Your task to perform on an android device: toggle notifications settings in the gmail app Image 0: 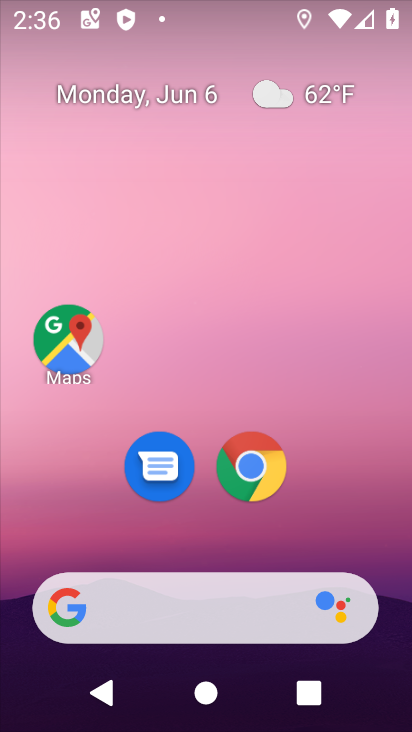
Step 0: drag from (253, 512) to (140, 187)
Your task to perform on an android device: toggle notifications settings in the gmail app Image 1: 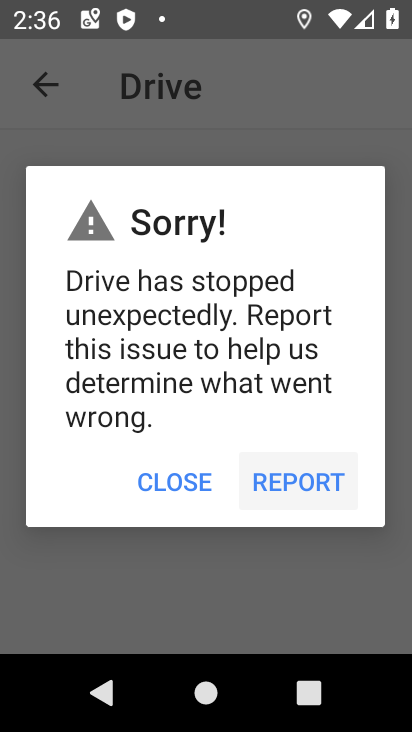
Step 1: drag from (252, 687) to (213, 384)
Your task to perform on an android device: toggle notifications settings in the gmail app Image 2: 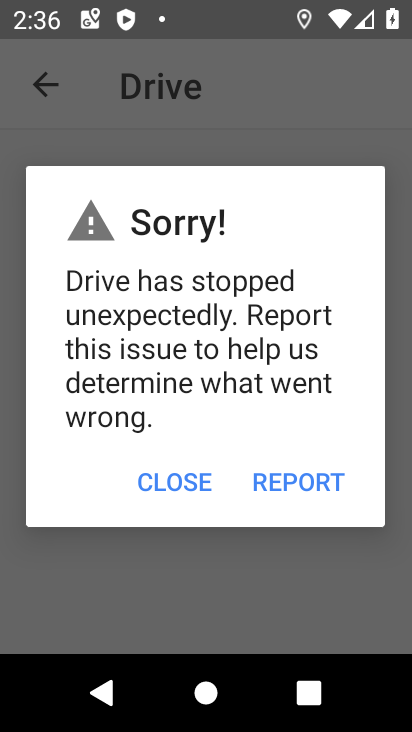
Step 2: click (203, 488)
Your task to perform on an android device: toggle notifications settings in the gmail app Image 3: 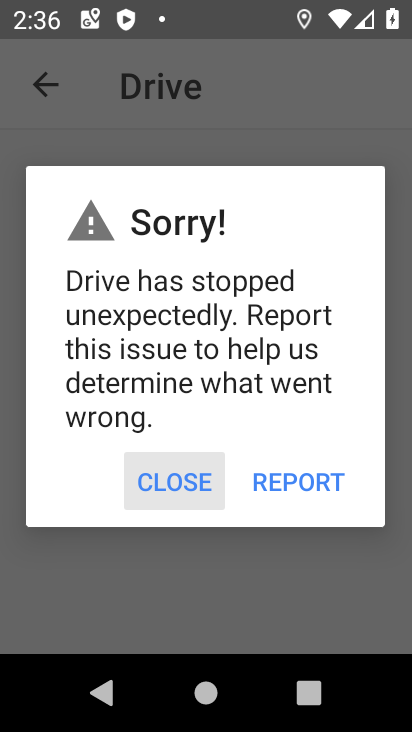
Step 3: click (190, 474)
Your task to perform on an android device: toggle notifications settings in the gmail app Image 4: 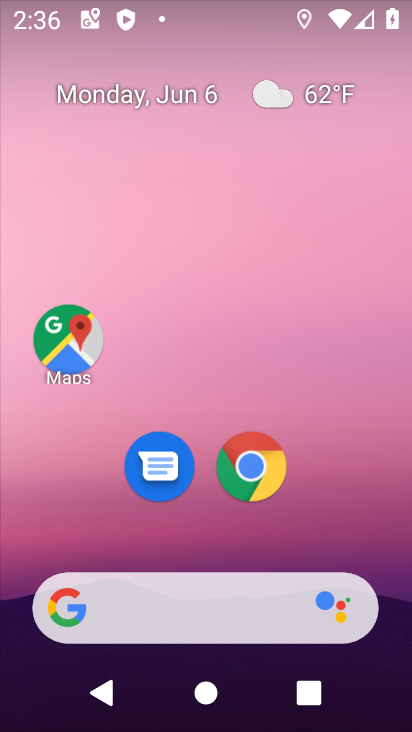
Step 4: drag from (319, 730) to (121, 6)
Your task to perform on an android device: toggle notifications settings in the gmail app Image 5: 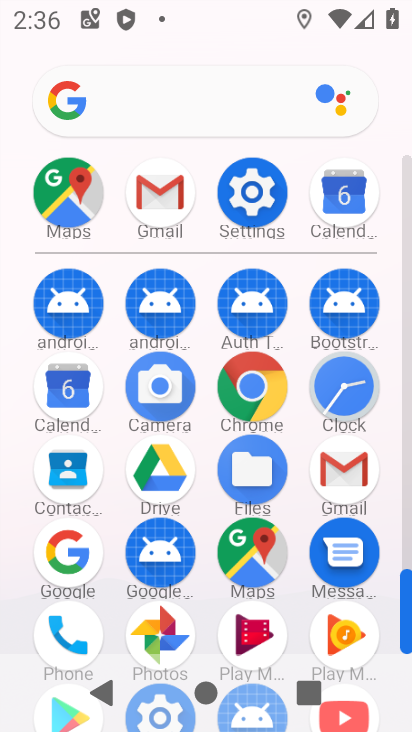
Step 5: click (332, 463)
Your task to perform on an android device: toggle notifications settings in the gmail app Image 6: 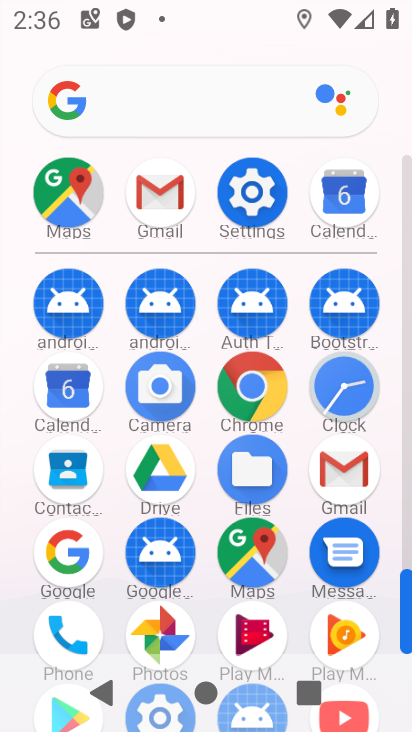
Step 6: click (332, 463)
Your task to perform on an android device: toggle notifications settings in the gmail app Image 7: 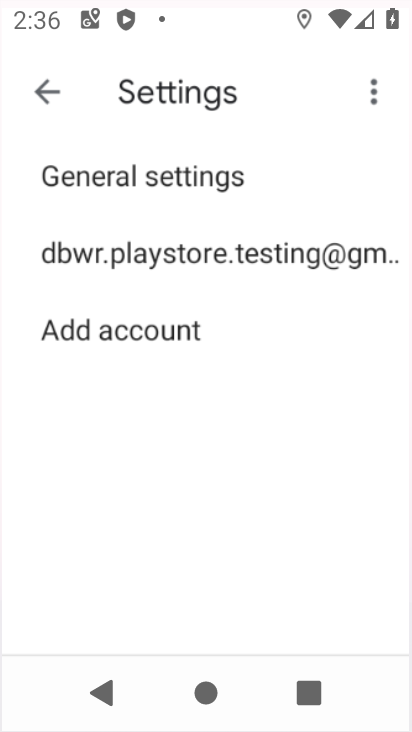
Step 7: click (342, 466)
Your task to perform on an android device: toggle notifications settings in the gmail app Image 8: 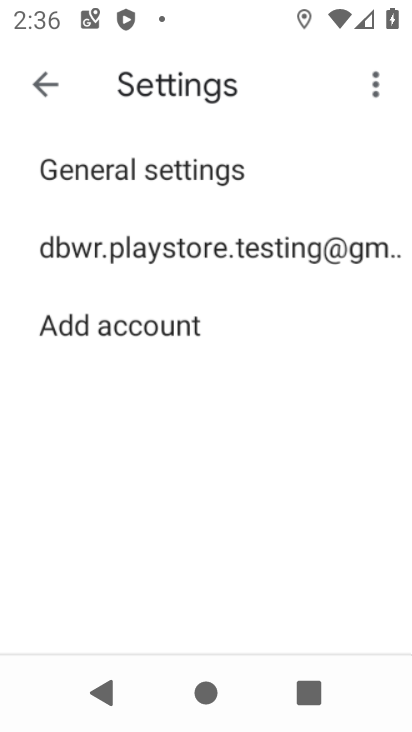
Step 8: click (344, 474)
Your task to perform on an android device: toggle notifications settings in the gmail app Image 9: 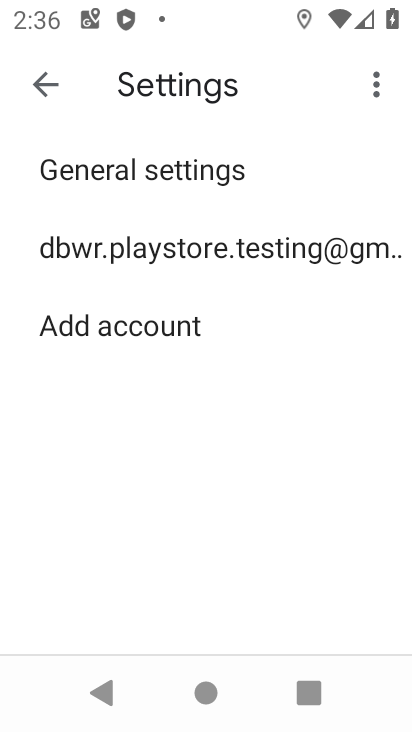
Step 9: click (172, 244)
Your task to perform on an android device: toggle notifications settings in the gmail app Image 10: 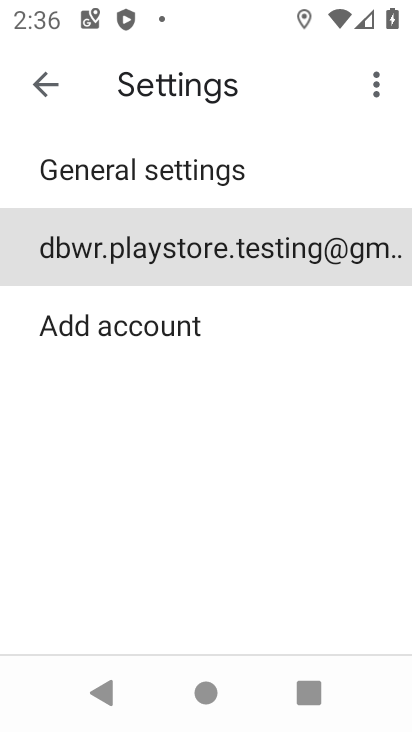
Step 10: click (172, 244)
Your task to perform on an android device: toggle notifications settings in the gmail app Image 11: 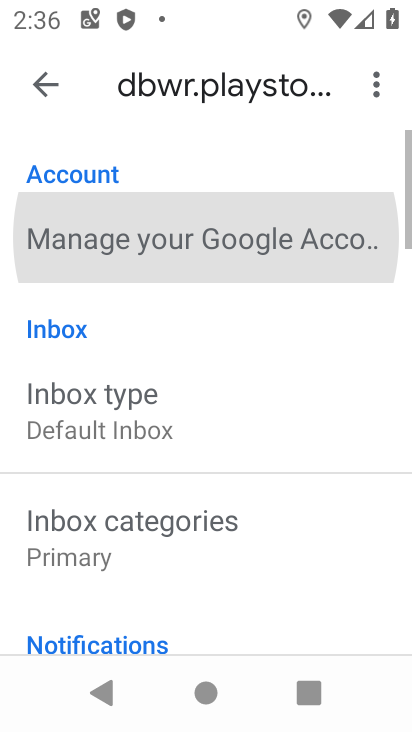
Step 11: click (175, 243)
Your task to perform on an android device: toggle notifications settings in the gmail app Image 12: 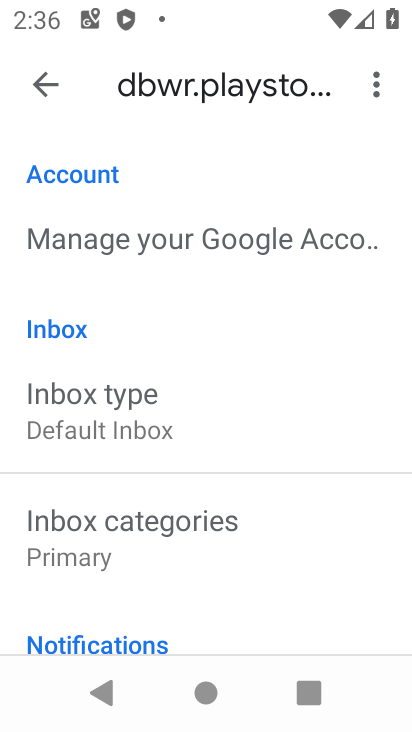
Step 12: drag from (152, 544) to (85, 163)
Your task to perform on an android device: toggle notifications settings in the gmail app Image 13: 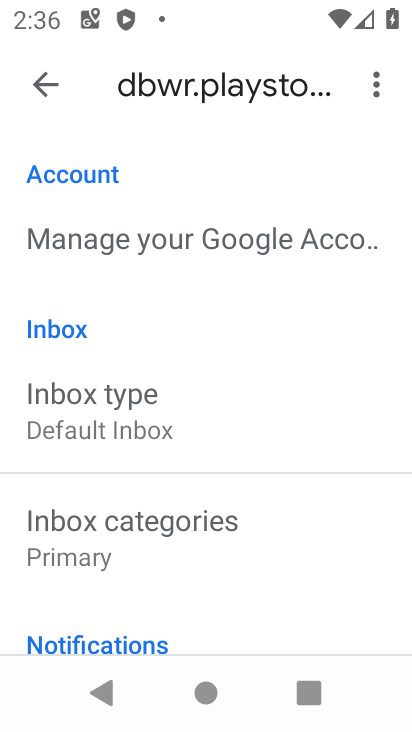
Step 13: drag from (104, 447) to (66, 152)
Your task to perform on an android device: toggle notifications settings in the gmail app Image 14: 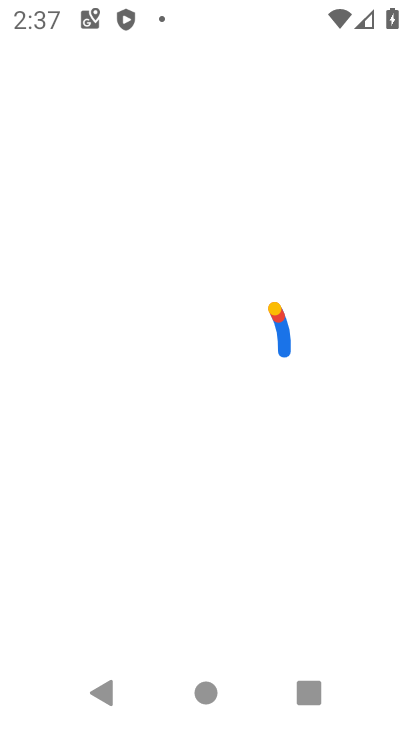
Step 14: press back button
Your task to perform on an android device: toggle notifications settings in the gmail app Image 15: 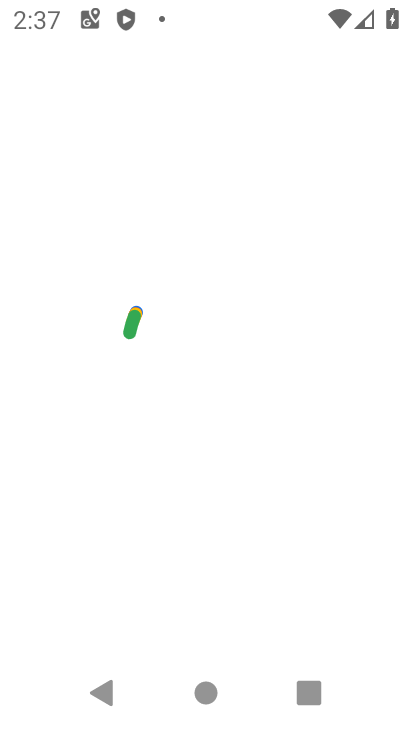
Step 15: press home button
Your task to perform on an android device: toggle notifications settings in the gmail app Image 16: 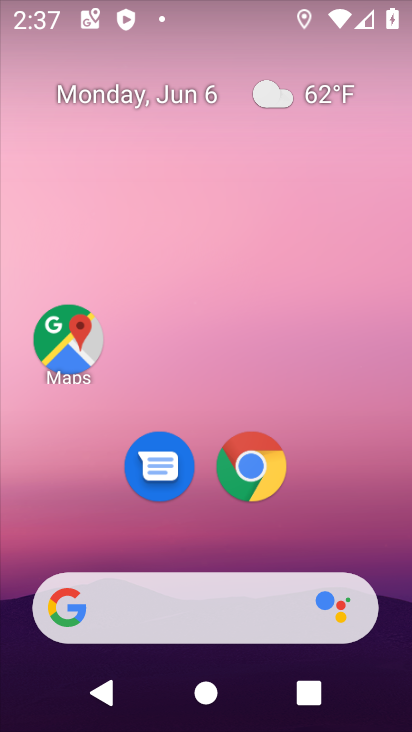
Step 16: drag from (221, 617) to (213, 103)
Your task to perform on an android device: toggle notifications settings in the gmail app Image 17: 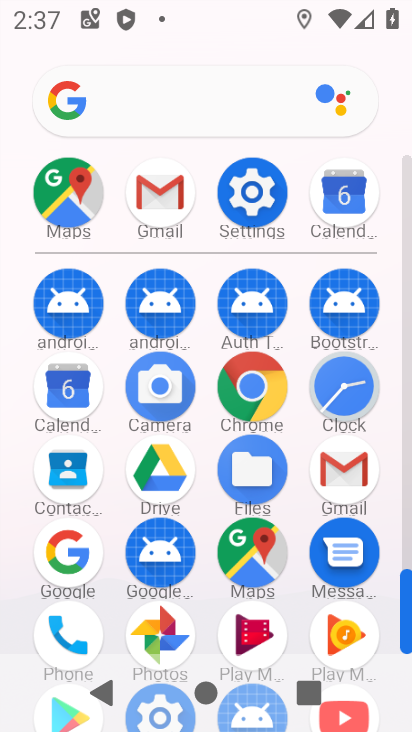
Step 17: click (330, 474)
Your task to perform on an android device: toggle notifications settings in the gmail app Image 18: 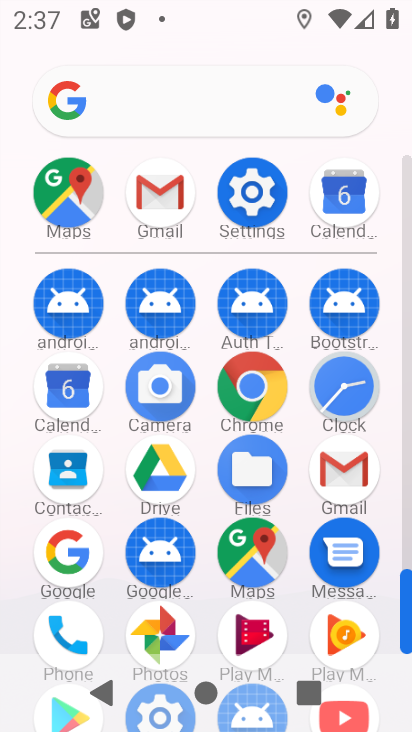
Step 18: click (331, 475)
Your task to perform on an android device: toggle notifications settings in the gmail app Image 19: 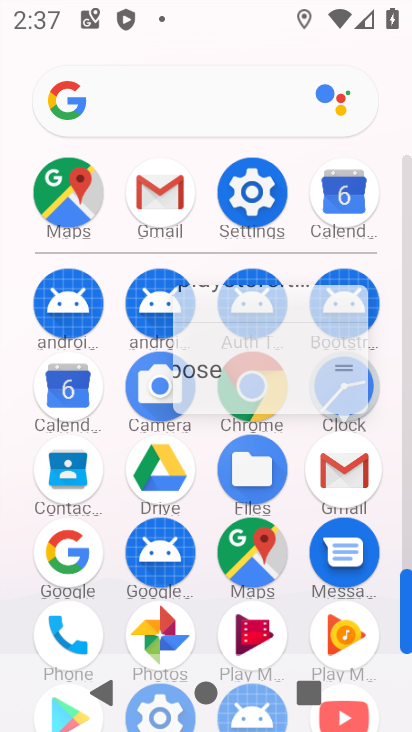
Step 19: click (331, 475)
Your task to perform on an android device: toggle notifications settings in the gmail app Image 20: 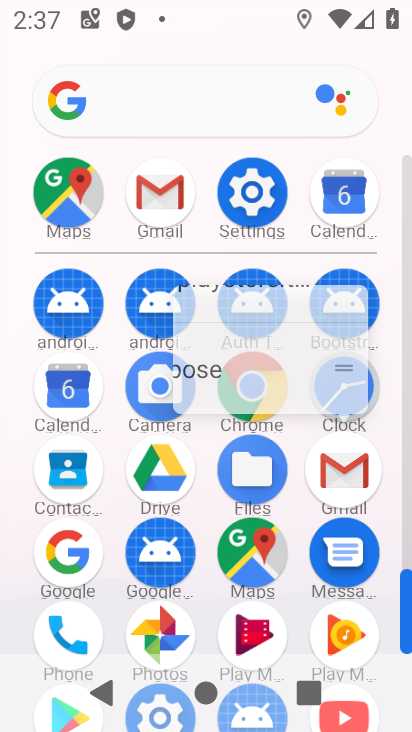
Step 20: click (332, 477)
Your task to perform on an android device: toggle notifications settings in the gmail app Image 21: 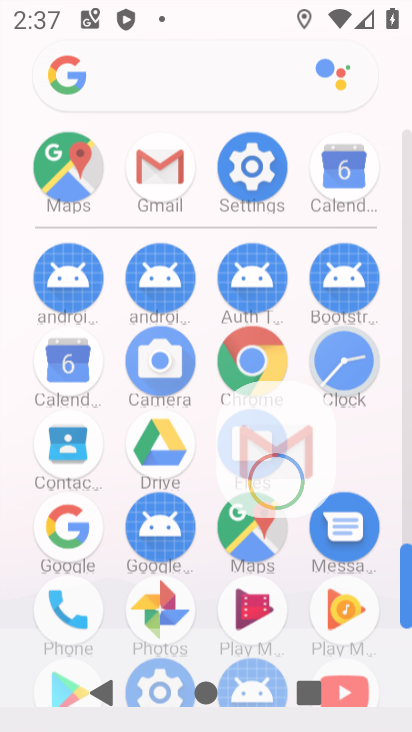
Step 21: click (332, 477)
Your task to perform on an android device: toggle notifications settings in the gmail app Image 22: 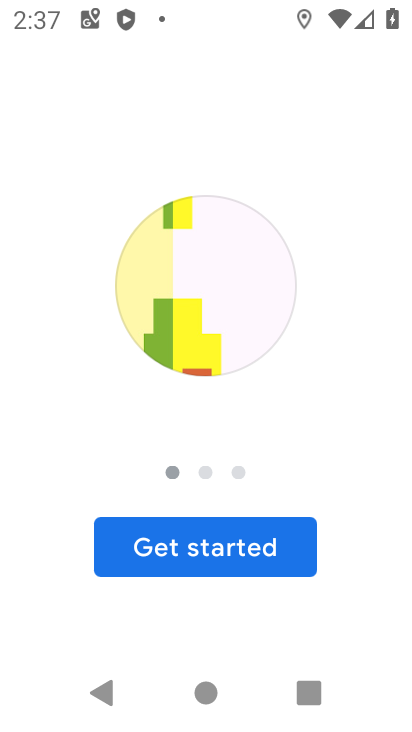
Step 22: click (209, 560)
Your task to perform on an android device: toggle notifications settings in the gmail app Image 23: 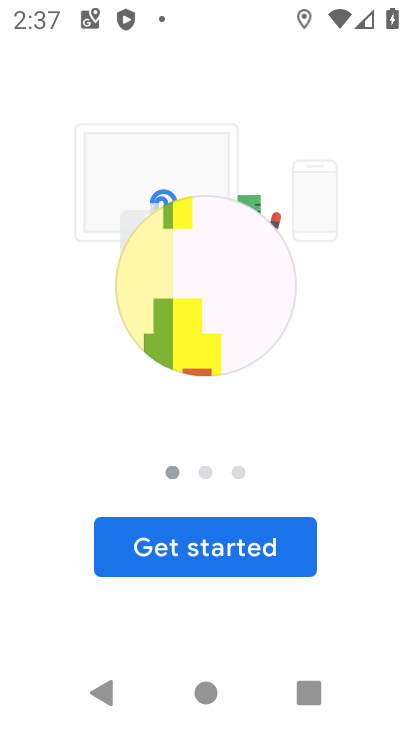
Step 23: click (209, 558)
Your task to perform on an android device: toggle notifications settings in the gmail app Image 24: 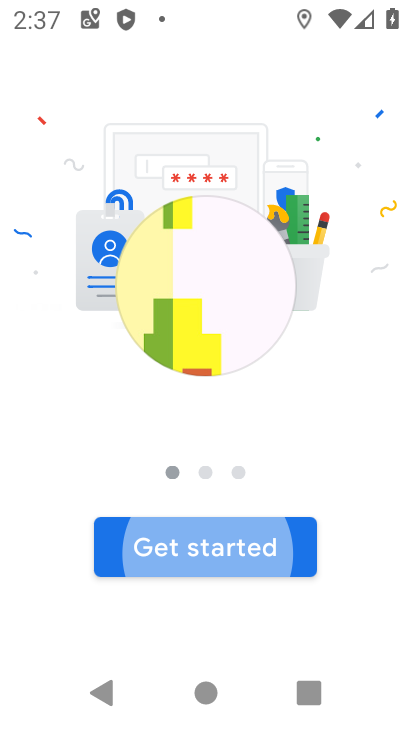
Step 24: click (209, 558)
Your task to perform on an android device: toggle notifications settings in the gmail app Image 25: 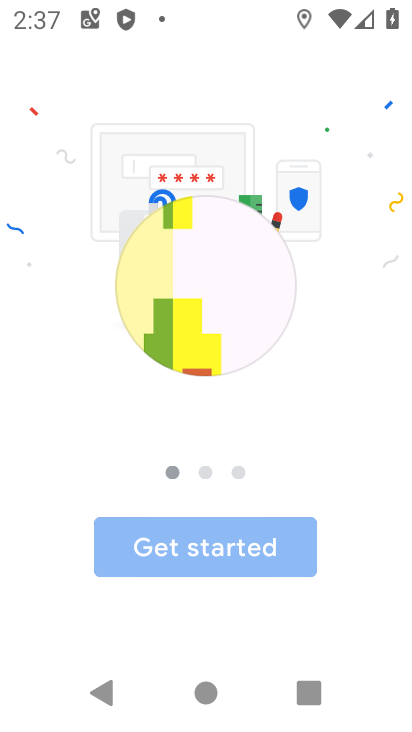
Step 25: click (209, 558)
Your task to perform on an android device: toggle notifications settings in the gmail app Image 26: 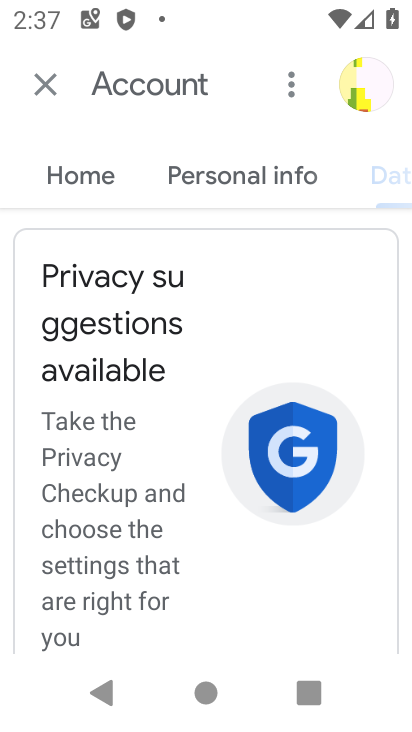
Step 26: click (60, 78)
Your task to perform on an android device: toggle notifications settings in the gmail app Image 27: 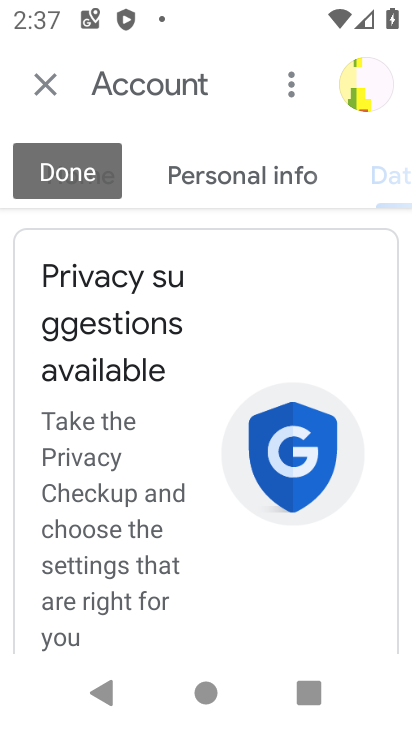
Step 27: click (45, 100)
Your task to perform on an android device: toggle notifications settings in the gmail app Image 28: 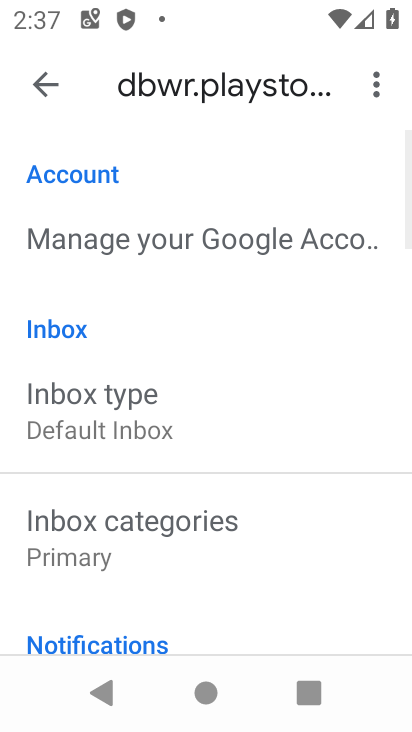
Step 28: drag from (144, 561) to (104, 137)
Your task to perform on an android device: toggle notifications settings in the gmail app Image 29: 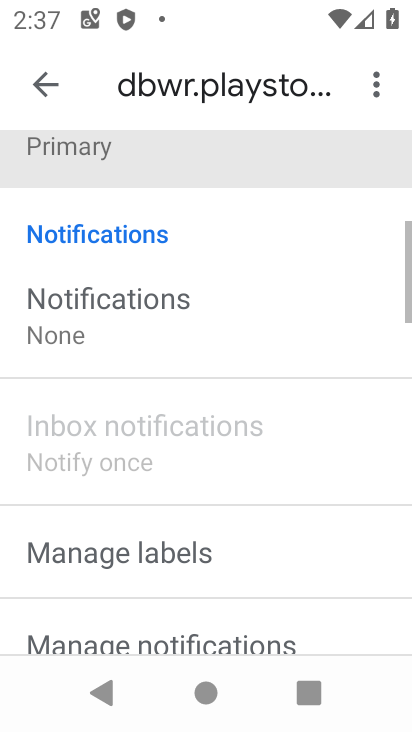
Step 29: drag from (152, 535) to (94, 215)
Your task to perform on an android device: toggle notifications settings in the gmail app Image 30: 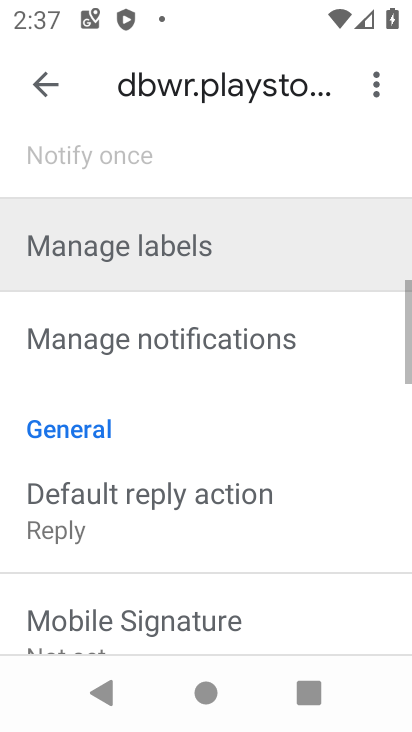
Step 30: drag from (169, 536) to (155, 175)
Your task to perform on an android device: toggle notifications settings in the gmail app Image 31: 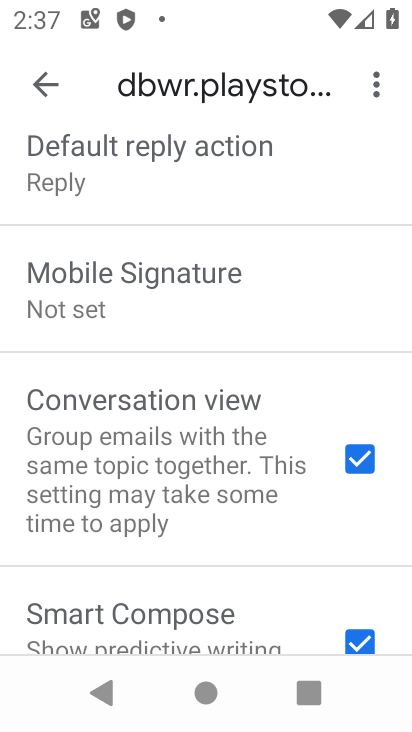
Step 31: click (99, 157)
Your task to perform on an android device: toggle notifications settings in the gmail app Image 32: 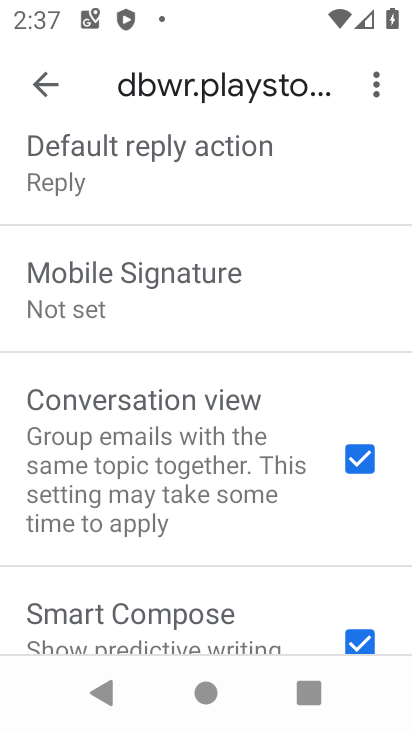
Step 32: drag from (145, 543) to (146, 248)
Your task to perform on an android device: toggle notifications settings in the gmail app Image 33: 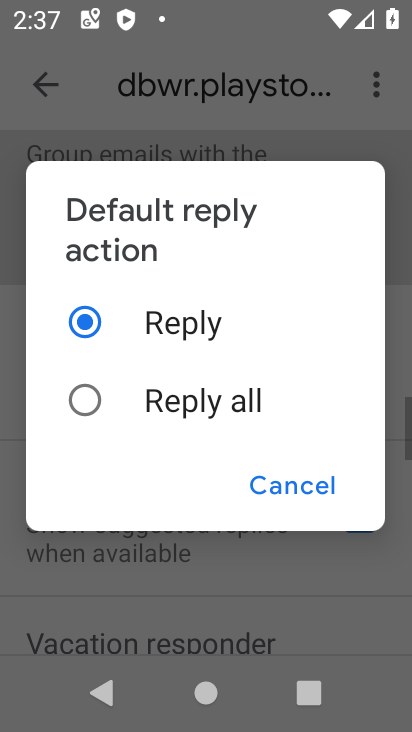
Step 33: drag from (132, 623) to (121, 283)
Your task to perform on an android device: toggle notifications settings in the gmail app Image 34: 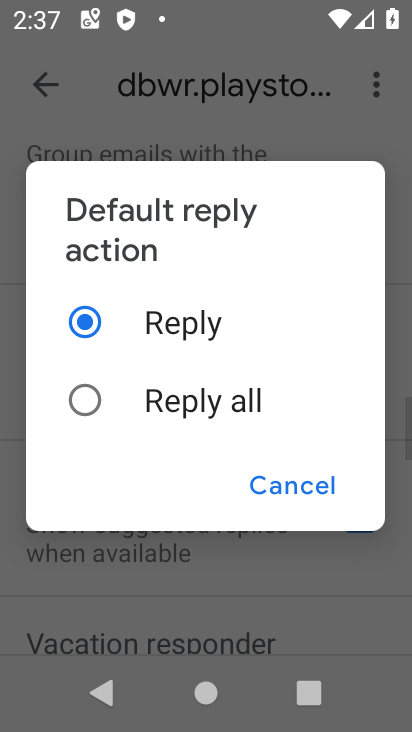
Step 34: drag from (121, 277) to (194, 604)
Your task to perform on an android device: toggle notifications settings in the gmail app Image 35: 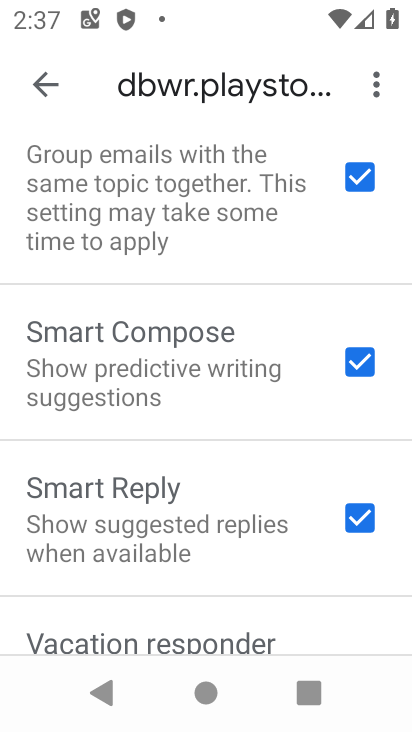
Step 35: click (314, 488)
Your task to perform on an android device: toggle notifications settings in the gmail app Image 36: 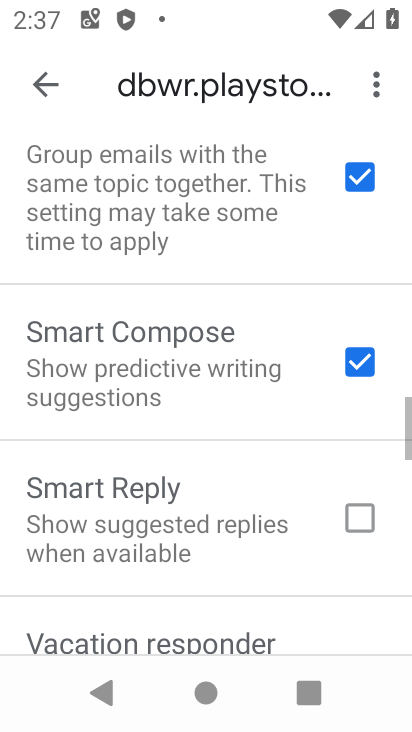
Step 36: drag from (189, 271) to (140, 707)
Your task to perform on an android device: toggle notifications settings in the gmail app Image 37: 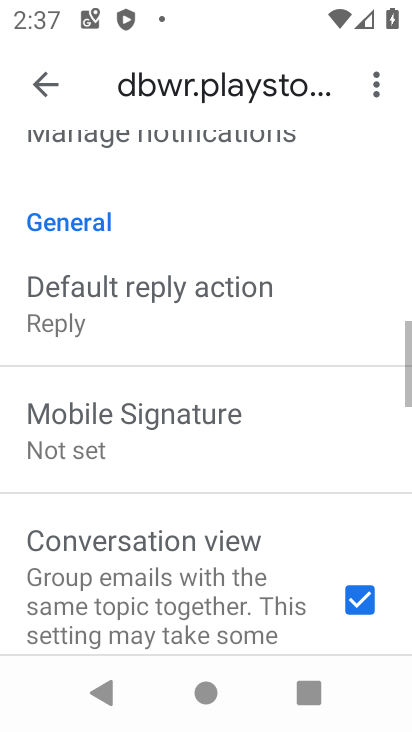
Step 37: drag from (130, 241) to (187, 635)
Your task to perform on an android device: toggle notifications settings in the gmail app Image 38: 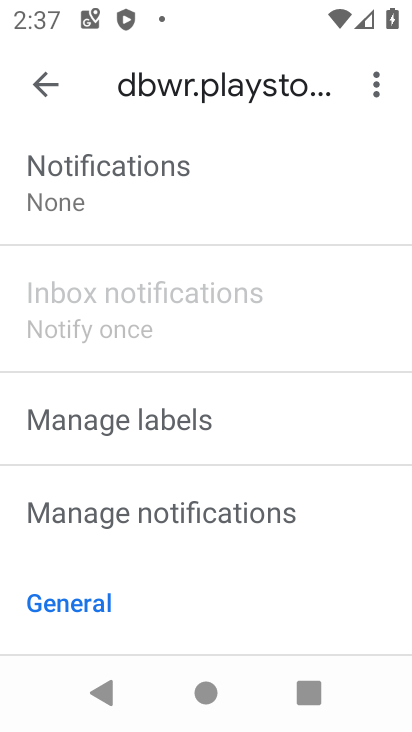
Step 38: drag from (70, 200) to (103, 560)
Your task to perform on an android device: toggle notifications settings in the gmail app Image 39: 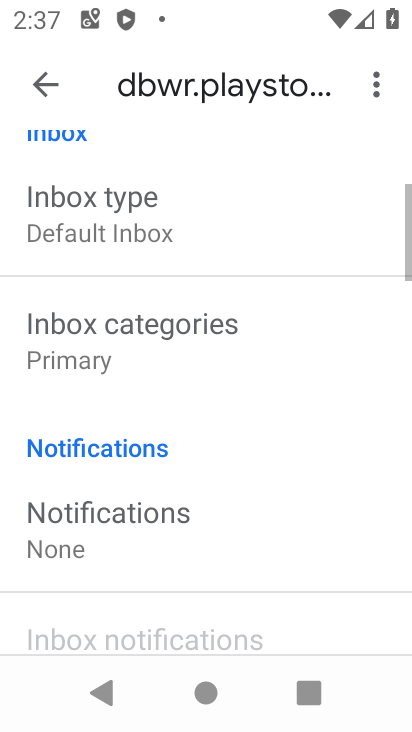
Step 39: click (62, 352)
Your task to perform on an android device: toggle notifications settings in the gmail app Image 40: 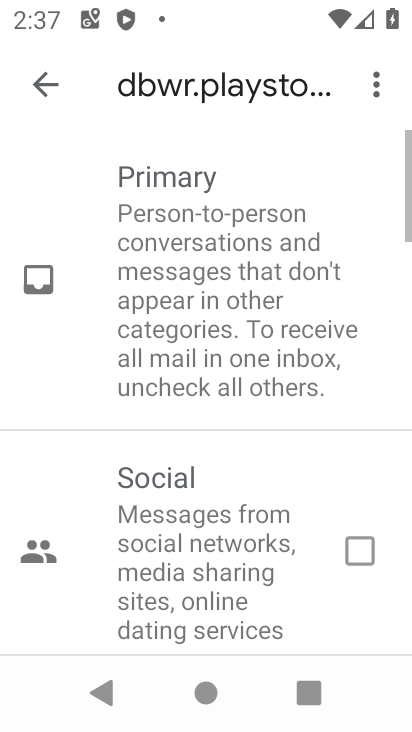
Step 40: click (35, 102)
Your task to perform on an android device: toggle notifications settings in the gmail app Image 41: 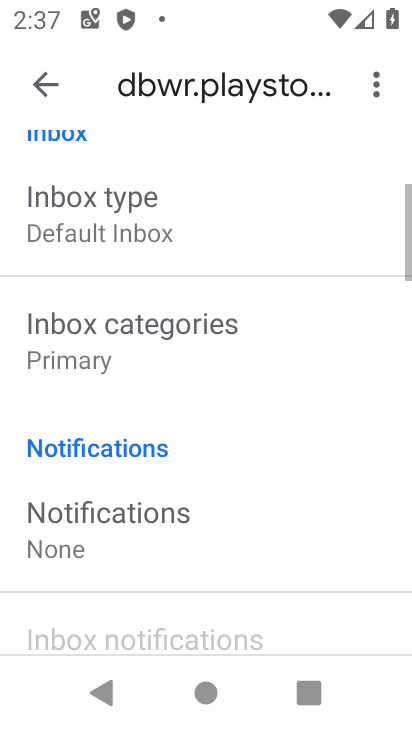
Step 41: click (70, 529)
Your task to perform on an android device: toggle notifications settings in the gmail app Image 42: 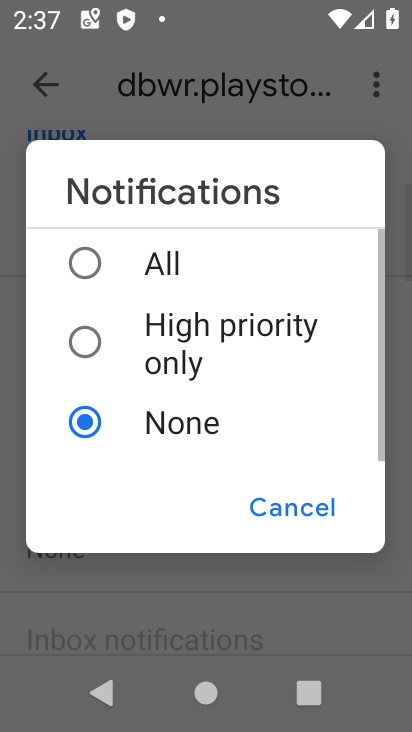
Step 42: click (79, 269)
Your task to perform on an android device: toggle notifications settings in the gmail app Image 43: 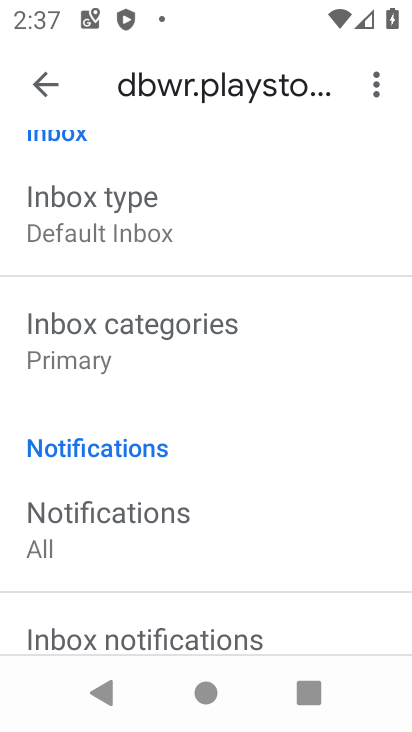
Step 43: task complete